Your task to perform on an android device: Show me popular games on the Play Store Image 0: 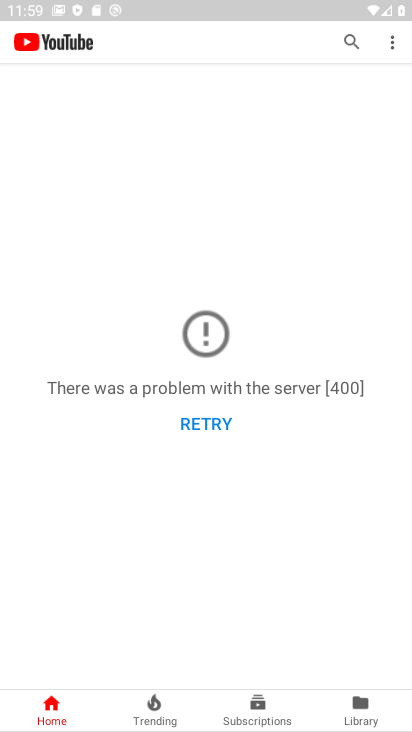
Step 0: press home button
Your task to perform on an android device: Show me popular games on the Play Store Image 1: 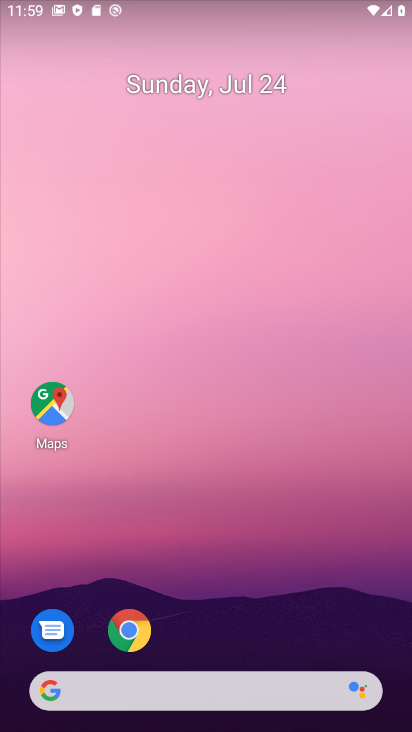
Step 1: drag from (227, 656) to (180, 0)
Your task to perform on an android device: Show me popular games on the Play Store Image 2: 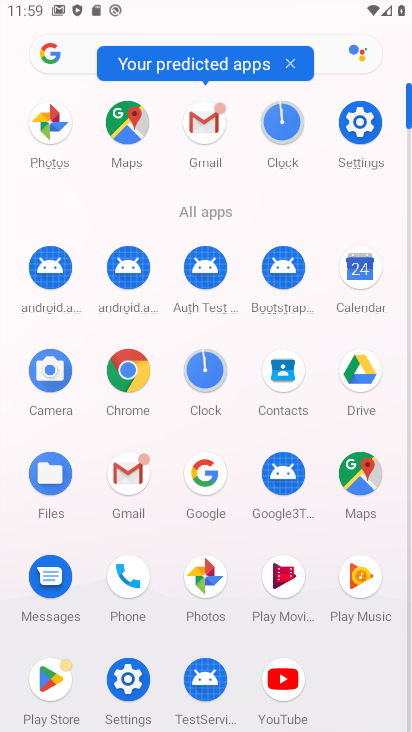
Step 2: click (57, 663)
Your task to perform on an android device: Show me popular games on the Play Store Image 3: 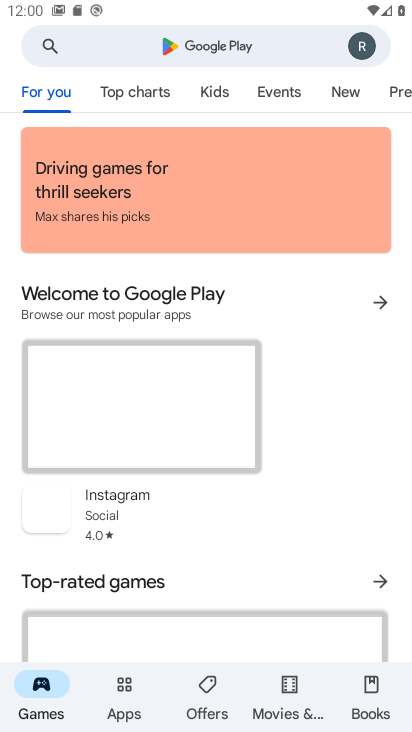
Step 3: click (128, 679)
Your task to perform on an android device: Show me popular games on the Play Store Image 4: 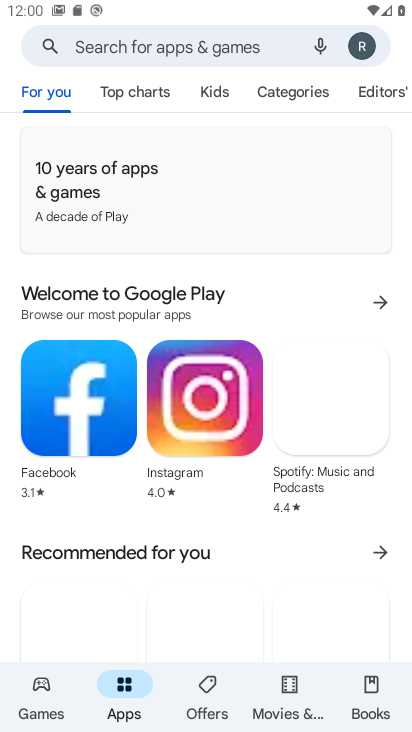
Step 4: click (292, 99)
Your task to perform on an android device: Show me popular games on the Play Store Image 5: 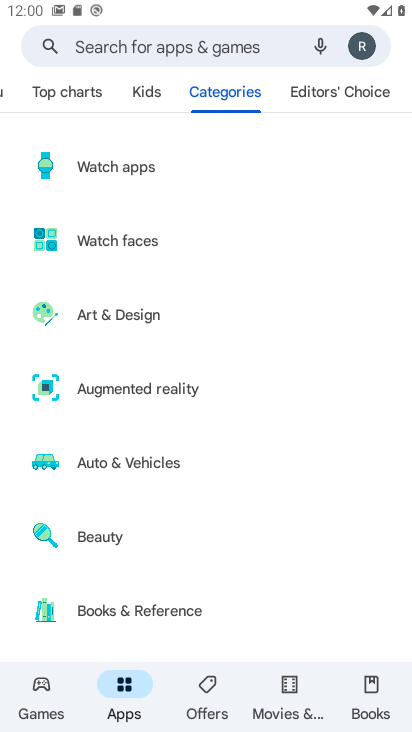
Step 5: drag from (211, 524) to (172, 103)
Your task to perform on an android device: Show me popular games on the Play Store Image 6: 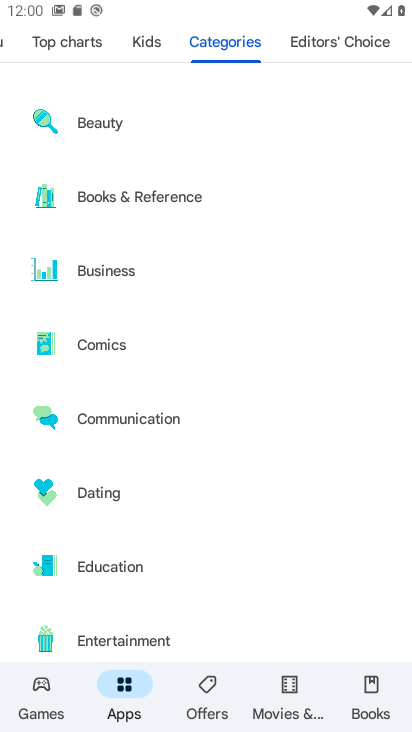
Step 6: click (39, 701)
Your task to perform on an android device: Show me popular games on the Play Store Image 7: 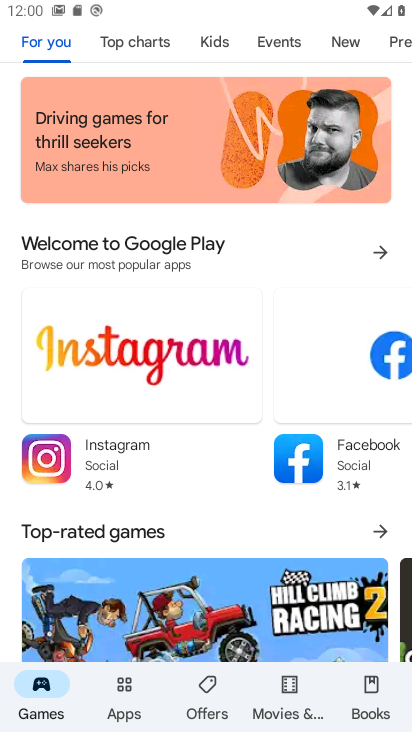
Step 7: drag from (244, 618) to (173, 152)
Your task to perform on an android device: Show me popular games on the Play Store Image 8: 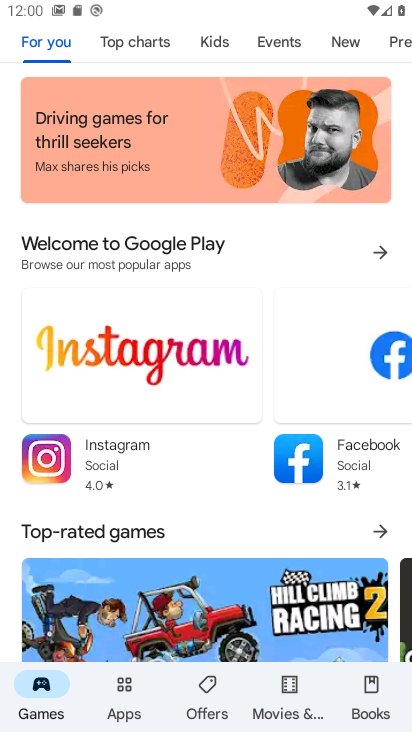
Step 8: drag from (221, 597) to (208, 102)
Your task to perform on an android device: Show me popular games on the Play Store Image 9: 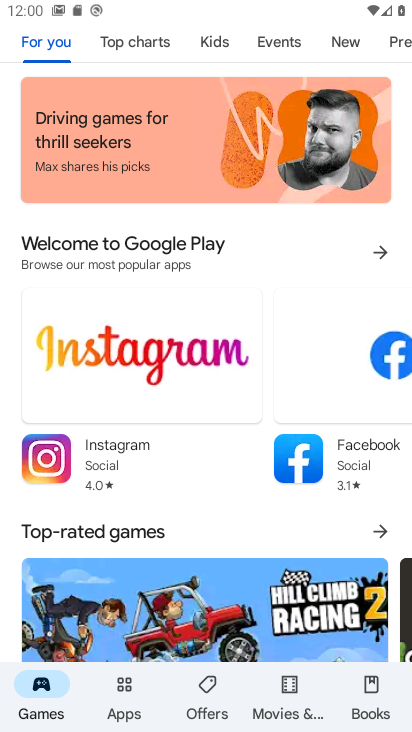
Step 9: drag from (254, 488) to (229, 41)
Your task to perform on an android device: Show me popular games on the Play Store Image 10: 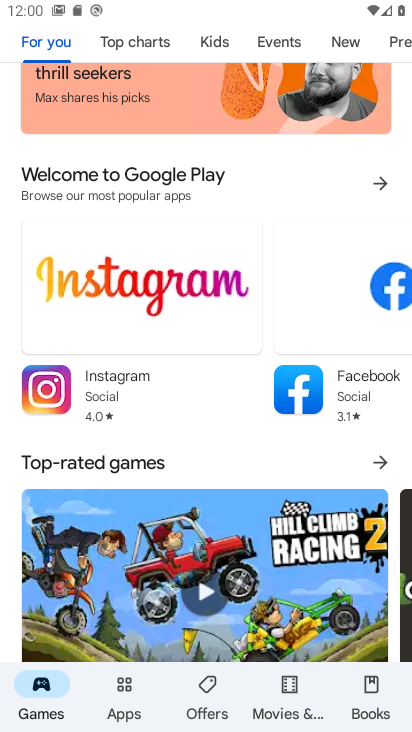
Step 10: drag from (165, 511) to (174, 0)
Your task to perform on an android device: Show me popular games on the Play Store Image 11: 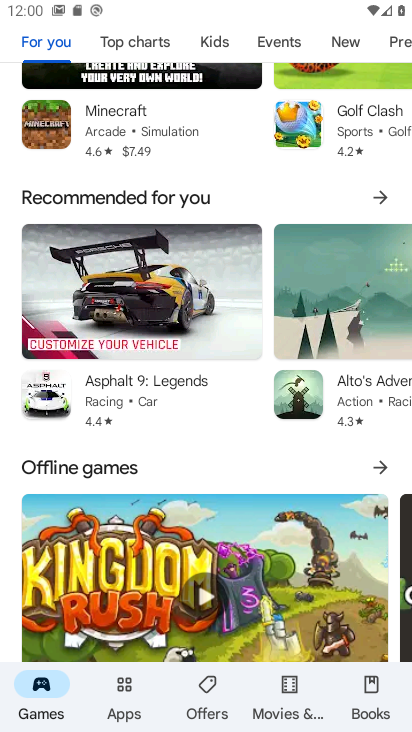
Step 11: drag from (230, 94) to (202, 508)
Your task to perform on an android device: Show me popular games on the Play Store Image 12: 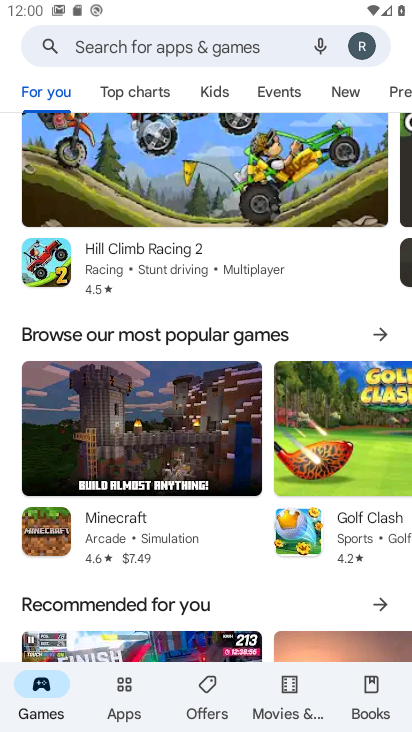
Step 12: click (377, 337)
Your task to perform on an android device: Show me popular games on the Play Store Image 13: 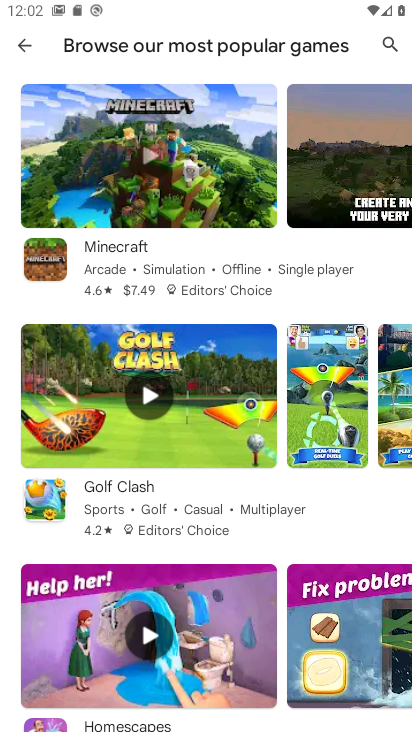
Step 13: task complete